Your task to perform on an android device: Search for Italian restaurants on Maps Image 0: 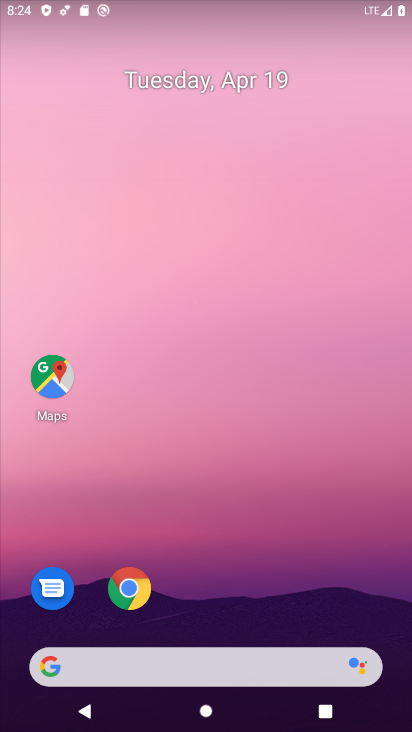
Step 0: drag from (193, 592) to (253, 40)
Your task to perform on an android device: Search for Italian restaurants on Maps Image 1: 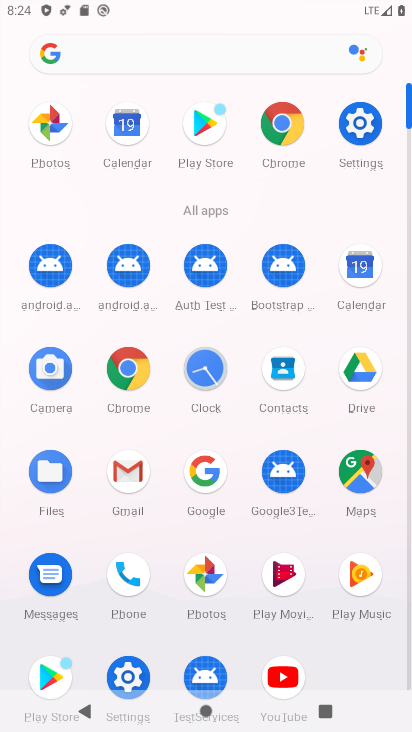
Step 1: click (353, 476)
Your task to perform on an android device: Search for Italian restaurants on Maps Image 2: 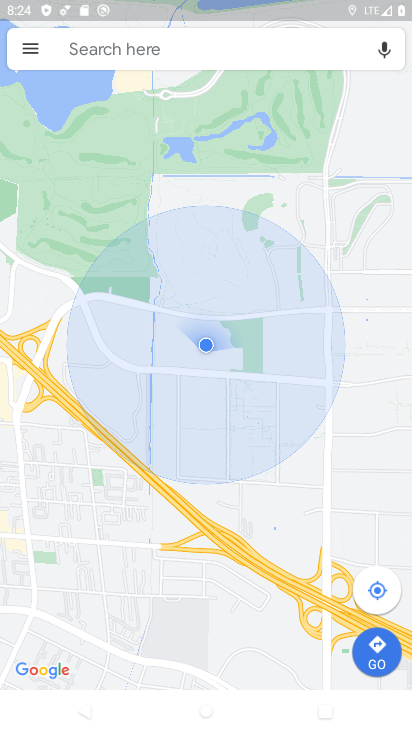
Step 2: click (188, 55)
Your task to perform on an android device: Search for Italian restaurants on Maps Image 3: 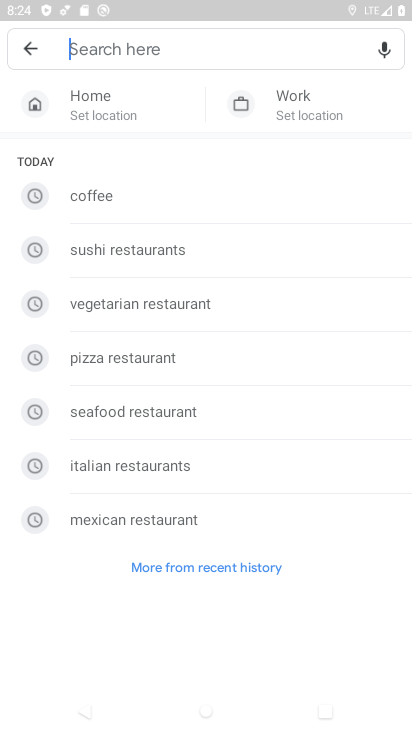
Step 3: click (172, 57)
Your task to perform on an android device: Search for Italian restaurants on Maps Image 4: 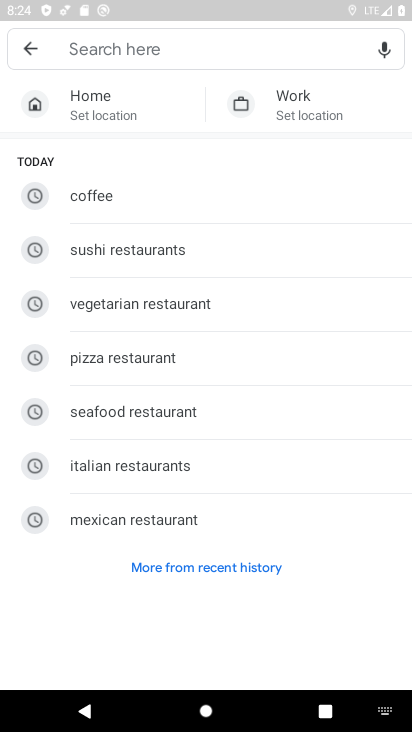
Step 4: click (162, 473)
Your task to perform on an android device: Search for Italian restaurants on Maps Image 5: 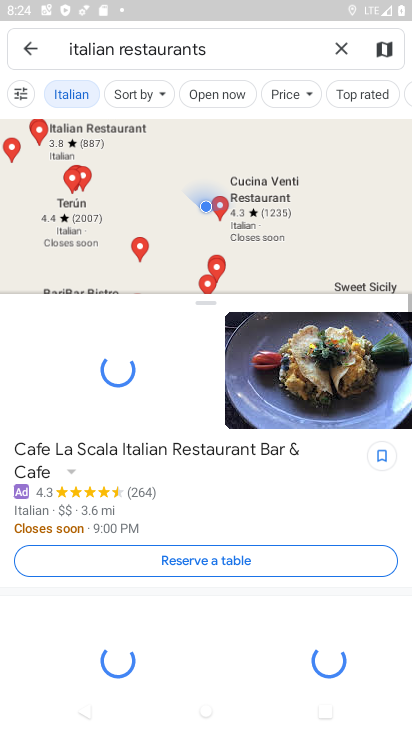
Step 5: task complete